Your task to perform on an android device: Go to sound settings Image 0: 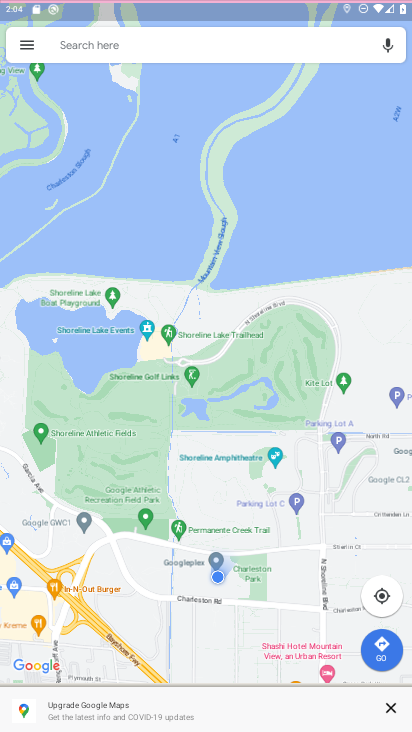
Step 0: click (44, 413)
Your task to perform on an android device: Go to sound settings Image 1: 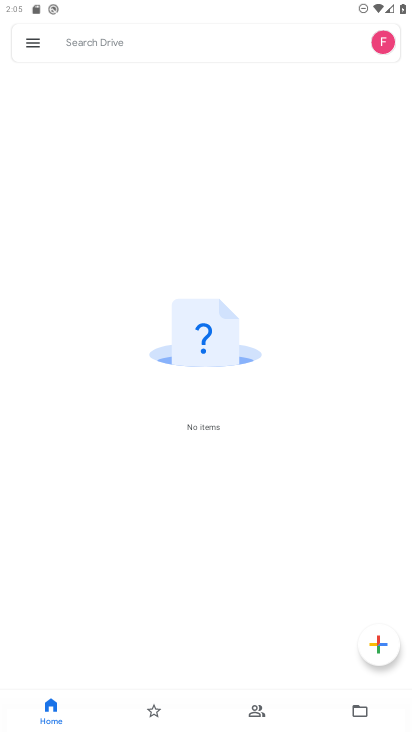
Step 1: press home button
Your task to perform on an android device: Go to sound settings Image 2: 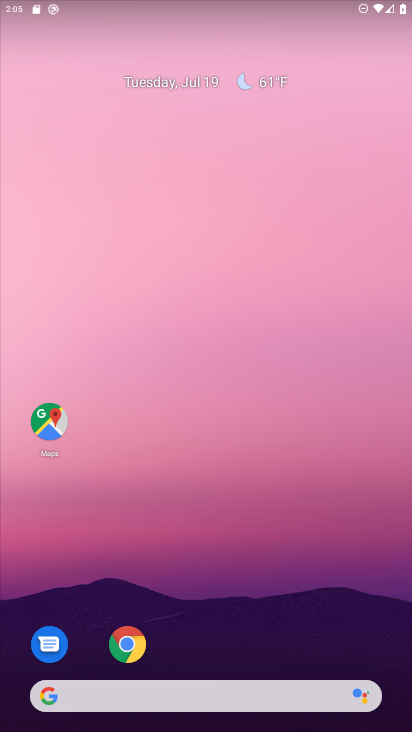
Step 2: drag from (301, 443) to (269, 56)
Your task to perform on an android device: Go to sound settings Image 3: 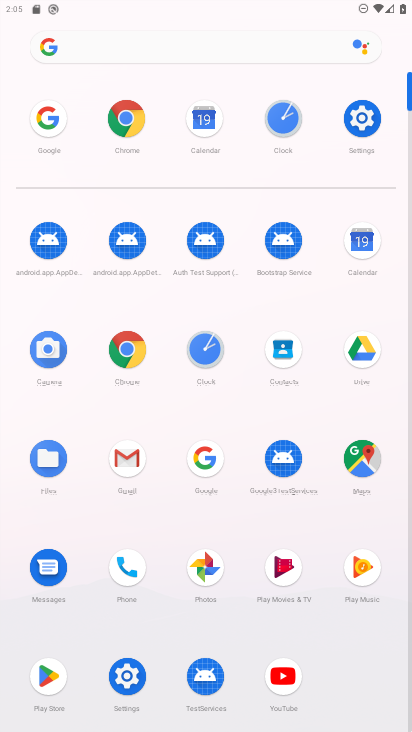
Step 3: click (117, 675)
Your task to perform on an android device: Go to sound settings Image 4: 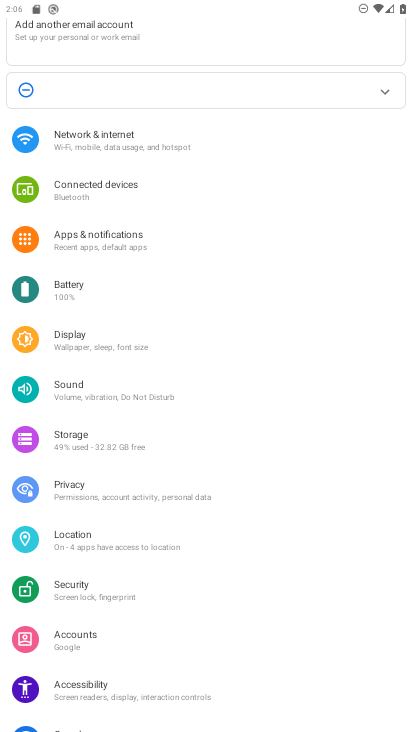
Step 4: click (69, 384)
Your task to perform on an android device: Go to sound settings Image 5: 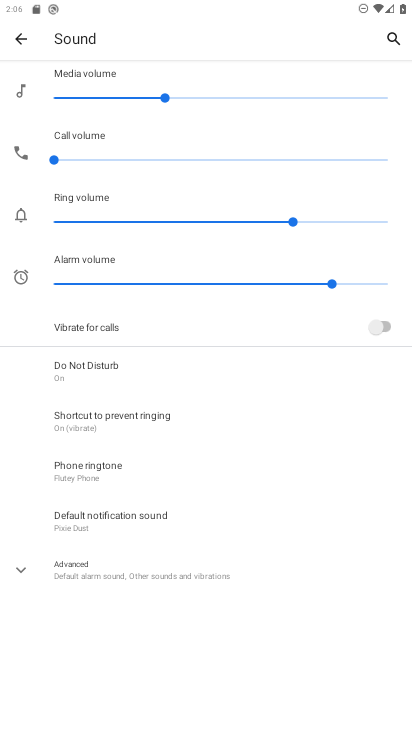
Step 5: task complete